Your task to perform on an android device: change your default location settings in chrome Image 0: 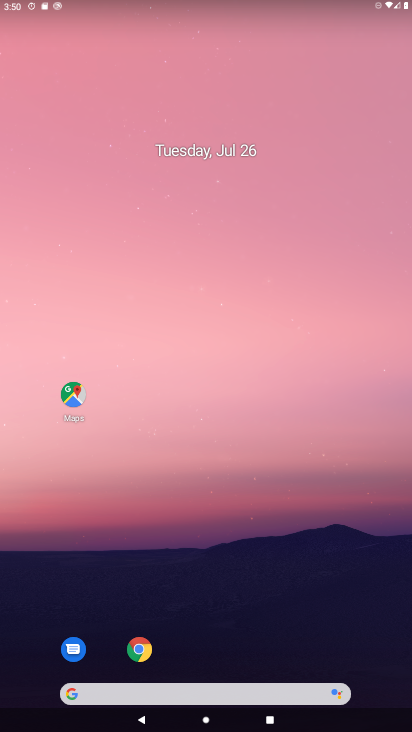
Step 0: drag from (371, 646) to (256, 6)
Your task to perform on an android device: change your default location settings in chrome Image 1: 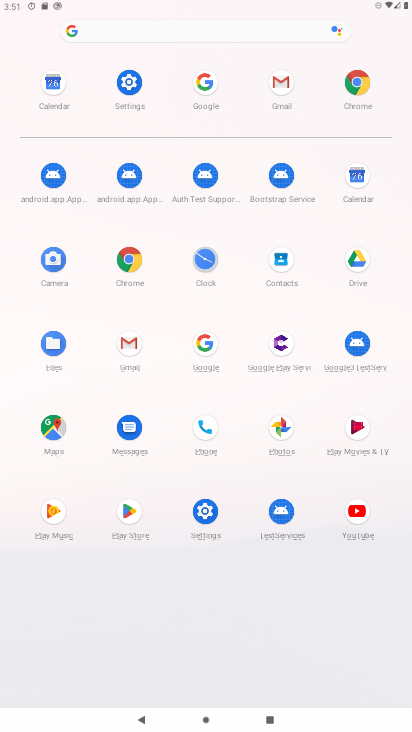
Step 1: click (139, 265)
Your task to perform on an android device: change your default location settings in chrome Image 2: 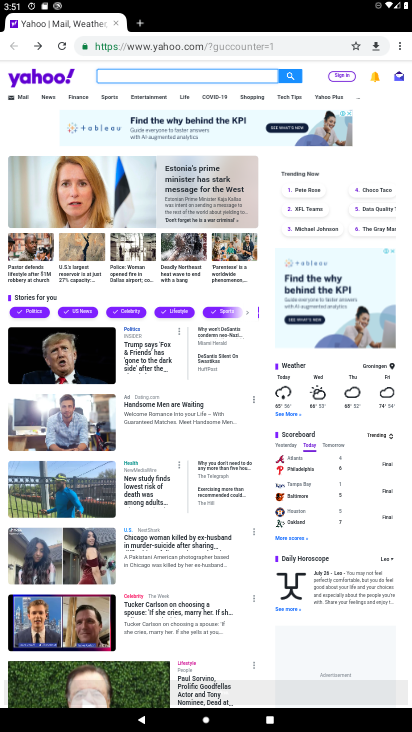
Step 2: click (401, 40)
Your task to perform on an android device: change your default location settings in chrome Image 3: 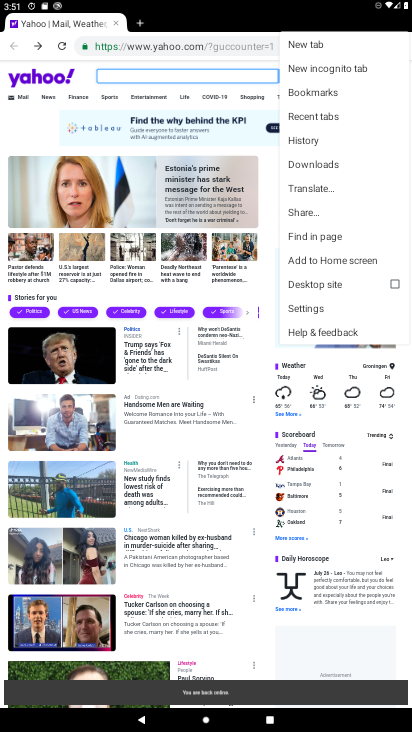
Step 3: click (326, 304)
Your task to perform on an android device: change your default location settings in chrome Image 4: 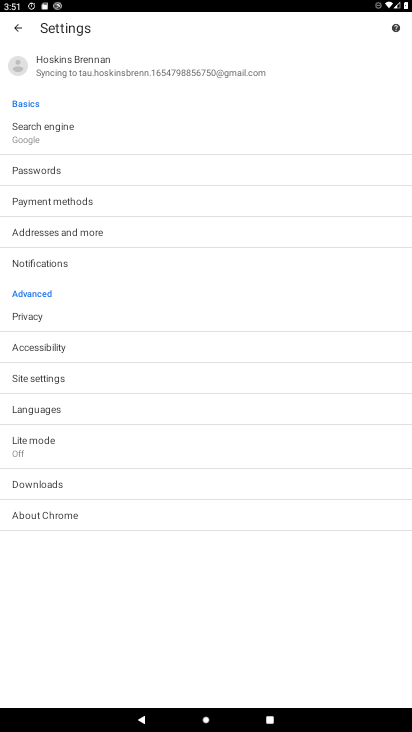
Step 4: click (35, 145)
Your task to perform on an android device: change your default location settings in chrome Image 5: 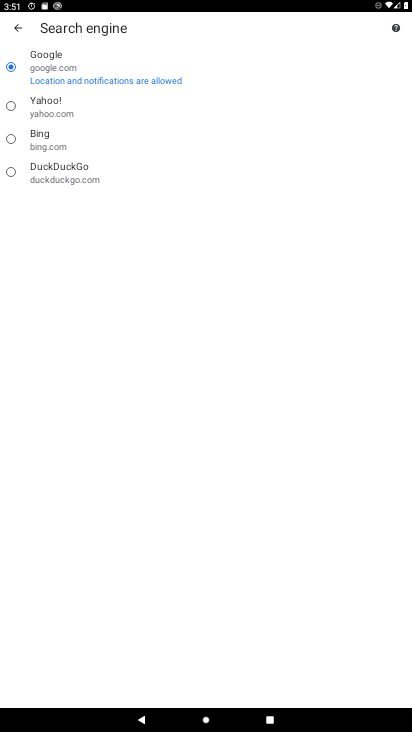
Step 5: click (71, 139)
Your task to perform on an android device: change your default location settings in chrome Image 6: 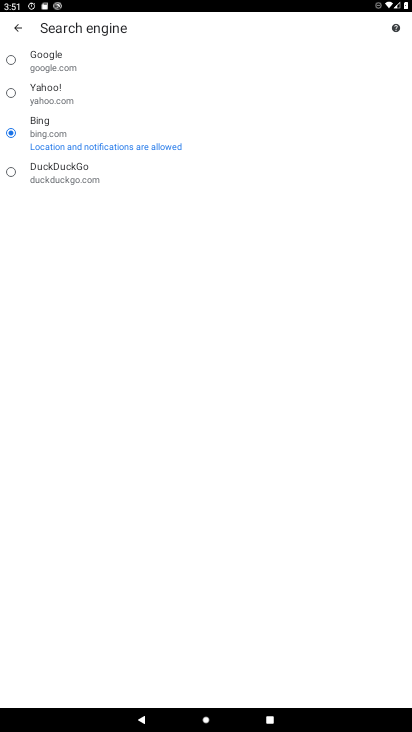
Step 6: task complete